Your task to perform on an android device: Go to wifi settings Image 0: 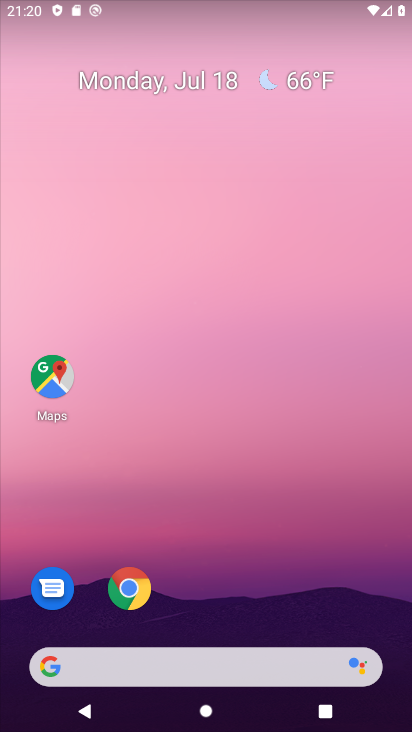
Step 0: press home button
Your task to perform on an android device: Go to wifi settings Image 1: 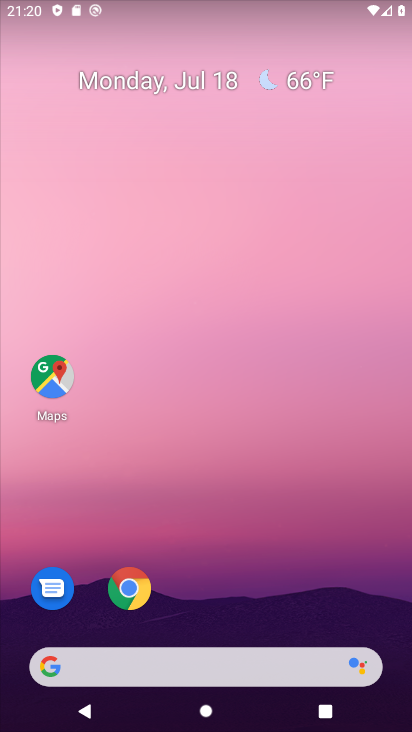
Step 1: drag from (188, 569) to (206, 123)
Your task to perform on an android device: Go to wifi settings Image 2: 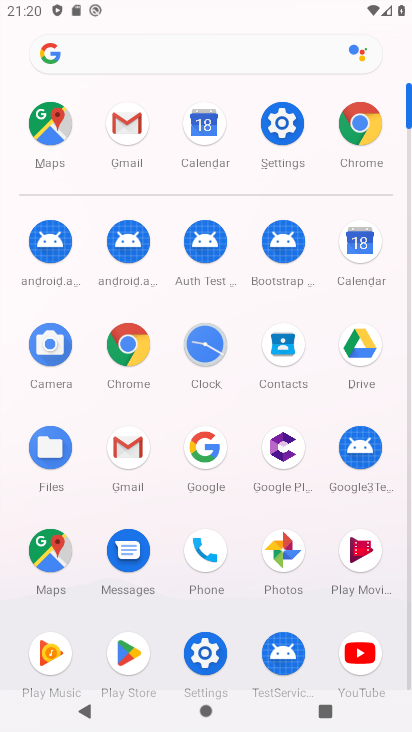
Step 2: click (276, 130)
Your task to perform on an android device: Go to wifi settings Image 3: 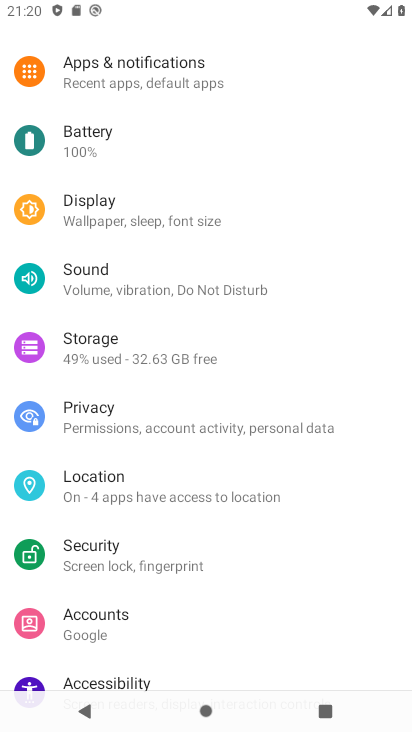
Step 3: drag from (243, 102) to (216, 607)
Your task to perform on an android device: Go to wifi settings Image 4: 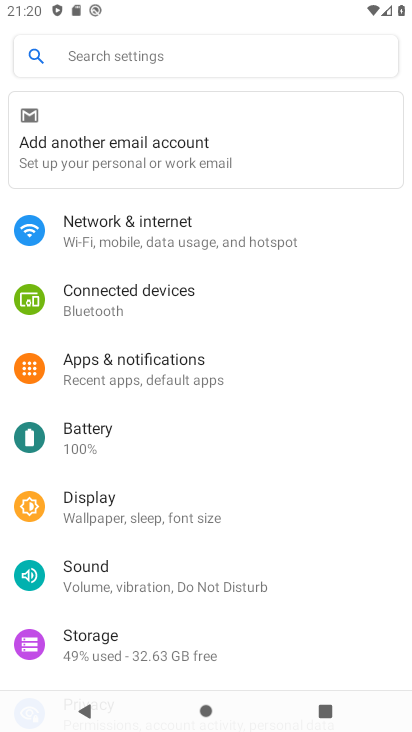
Step 4: click (152, 226)
Your task to perform on an android device: Go to wifi settings Image 5: 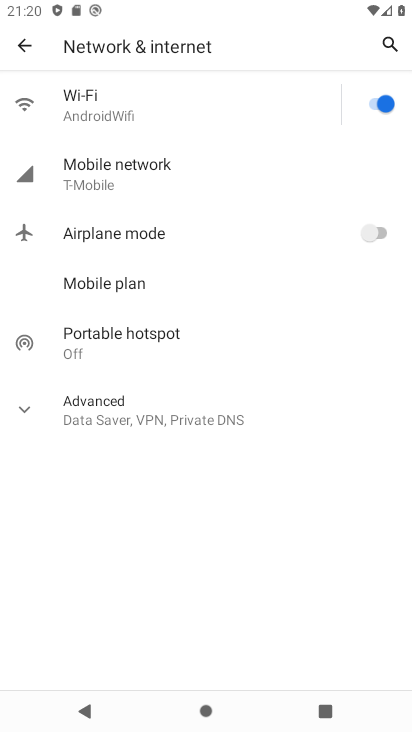
Step 5: click (117, 104)
Your task to perform on an android device: Go to wifi settings Image 6: 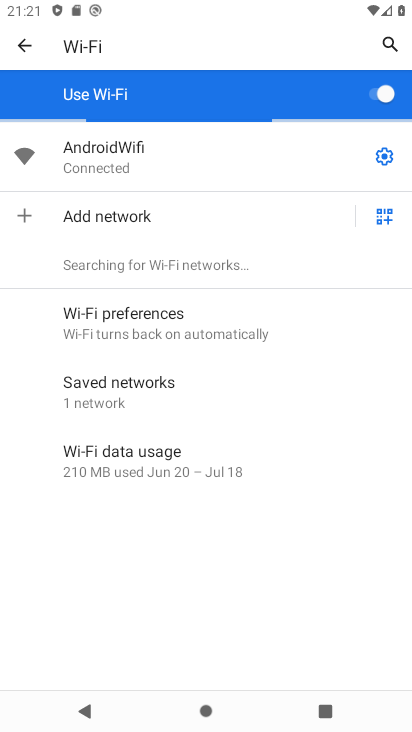
Step 6: task complete